Your task to perform on an android device: open wifi settings Image 0: 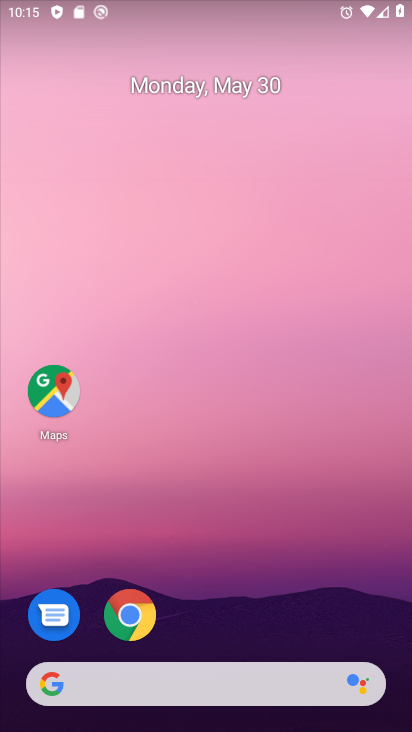
Step 0: drag from (197, 643) to (241, 281)
Your task to perform on an android device: open wifi settings Image 1: 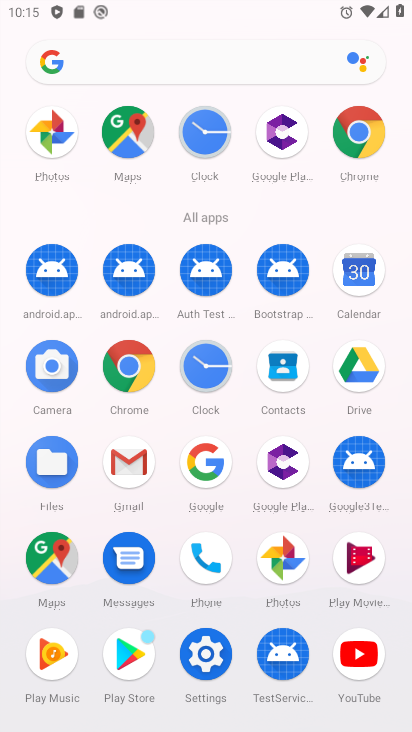
Step 1: click (213, 659)
Your task to perform on an android device: open wifi settings Image 2: 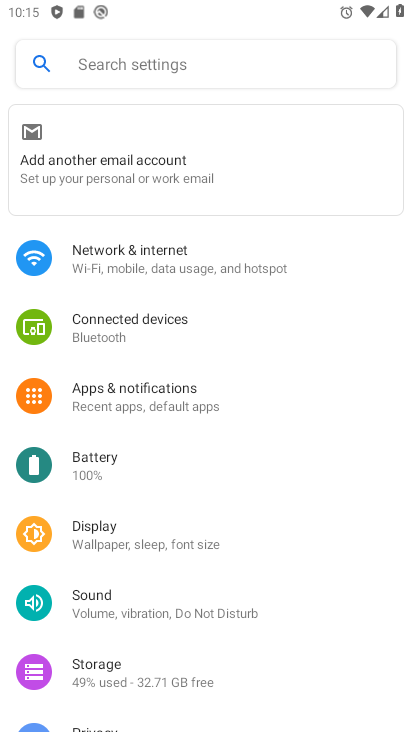
Step 2: click (208, 279)
Your task to perform on an android device: open wifi settings Image 3: 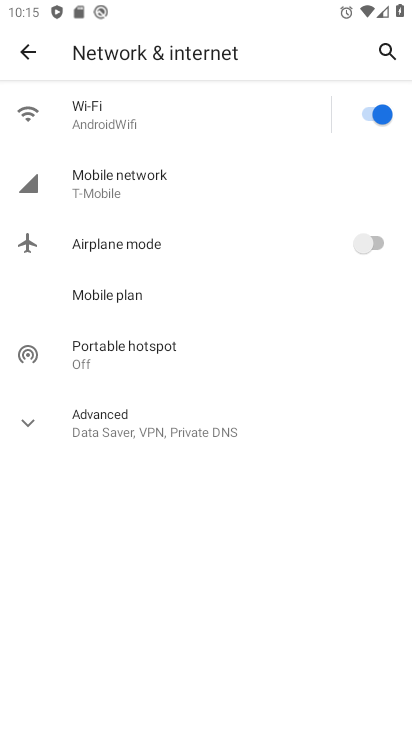
Step 3: click (163, 133)
Your task to perform on an android device: open wifi settings Image 4: 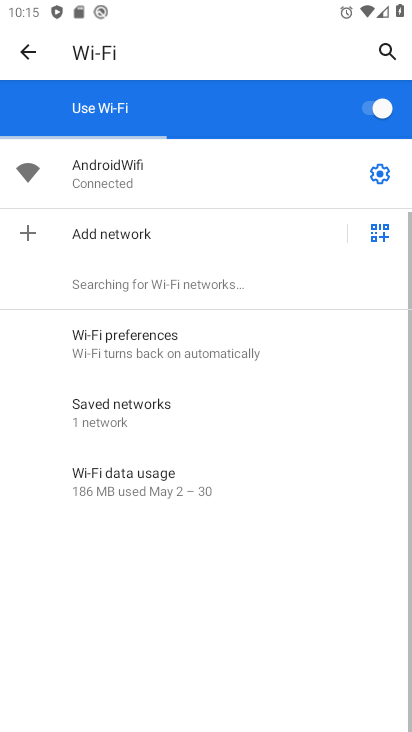
Step 4: task complete